Your task to perform on an android device: turn off location Image 0: 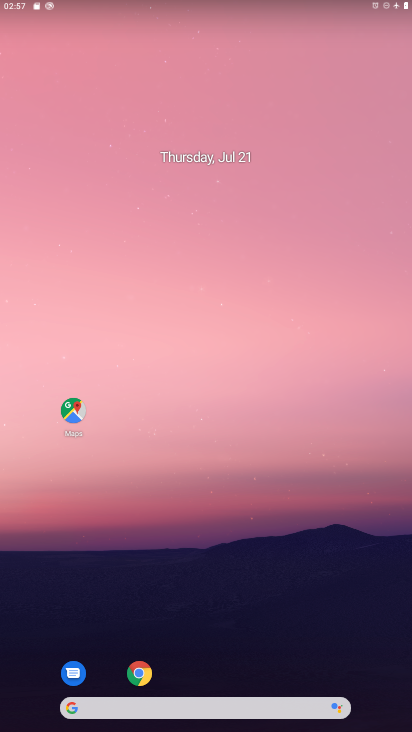
Step 0: drag from (248, 609) to (358, 3)
Your task to perform on an android device: turn off location Image 1: 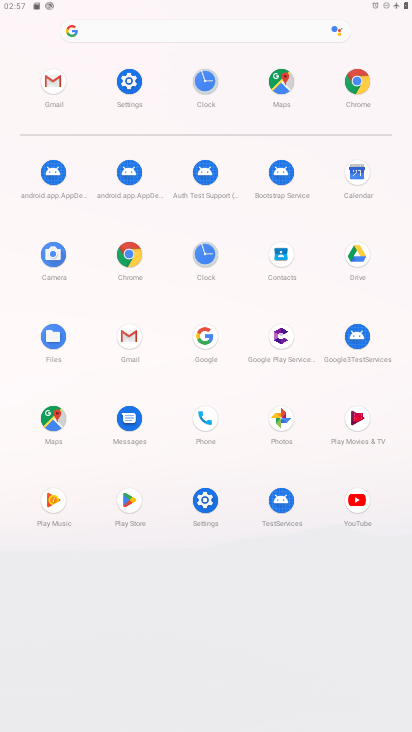
Step 1: click (127, 77)
Your task to perform on an android device: turn off location Image 2: 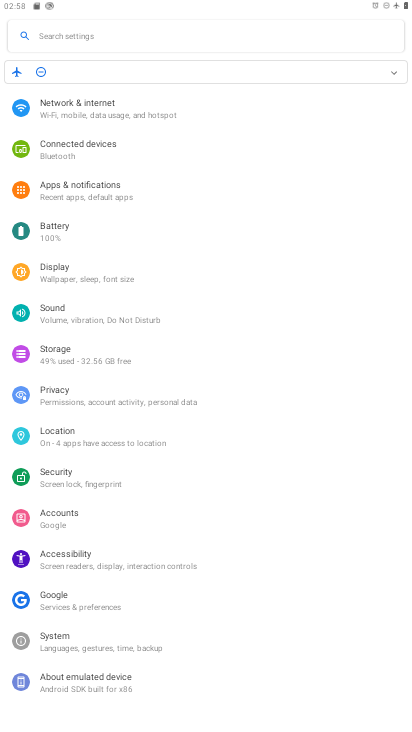
Step 2: click (93, 435)
Your task to perform on an android device: turn off location Image 3: 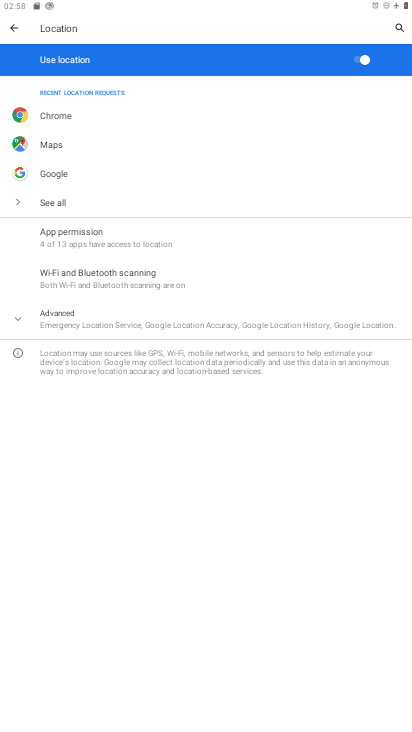
Step 3: click (358, 56)
Your task to perform on an android device: turn off location Image 4: 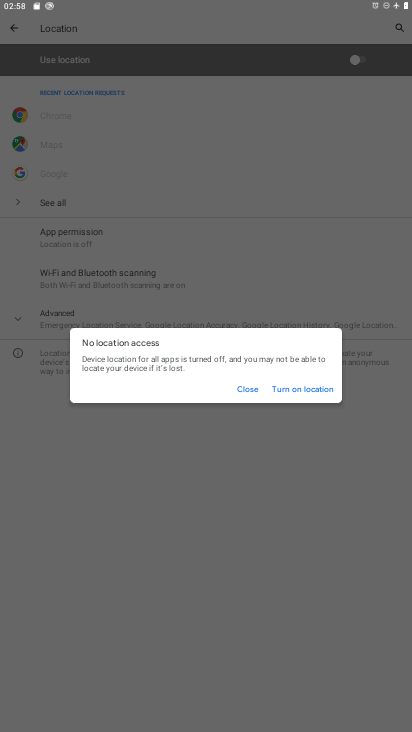
Step 4: click (285, 548)
Your task to perform on an android device: turn off location Image 5: 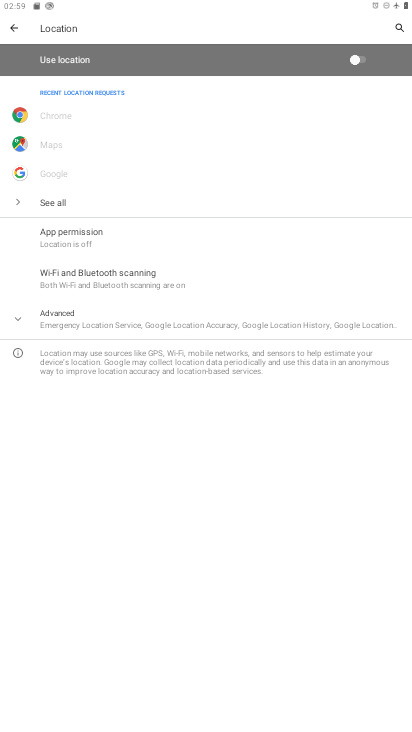
Step 5: task complete